Your task to perform on an android device: delete the emails in spam in the gmail app Image 0: 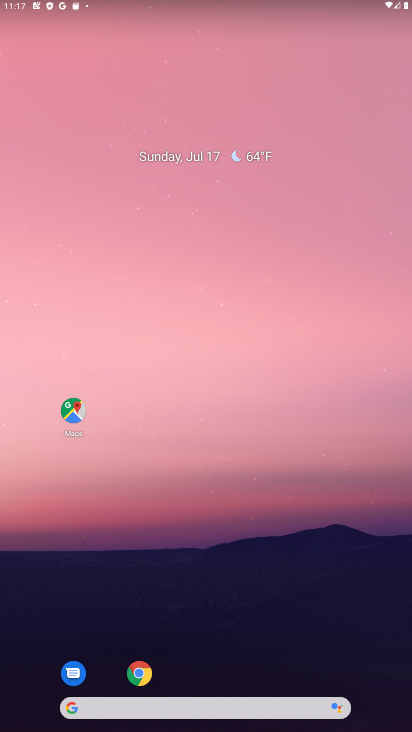
Step 0: drag from (209, 685) to (214, 194)
Your task to perform on an android device: delete the emails in spam in the gmail app Image 1: 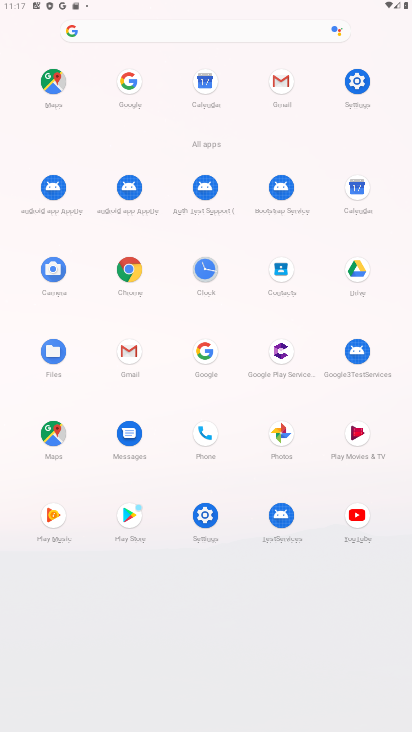
Step 1: click (126, 347)
Your task to perform on an android device: delete the emails in spam in the gmail app Image 2: 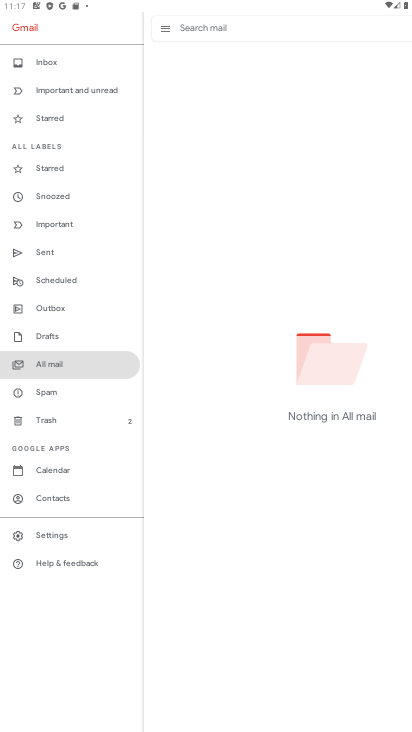
Step 2: click (64, 394)
Your task to perform on an android device: delete the emails in spam in the gmail app Image 3: 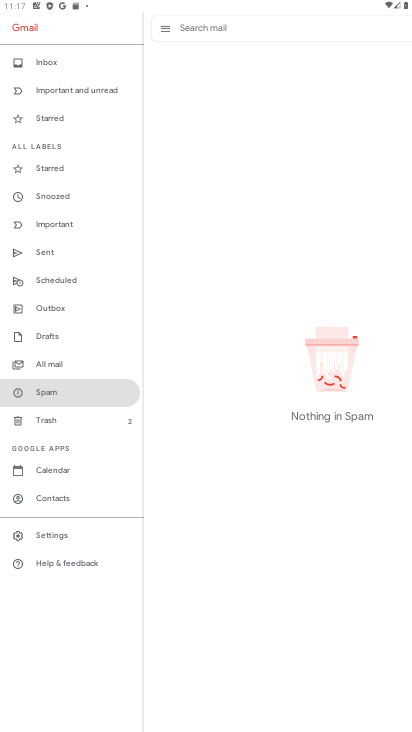
Step 3: task complete